Your task to perform on an android device: turn on wifi Image 0: 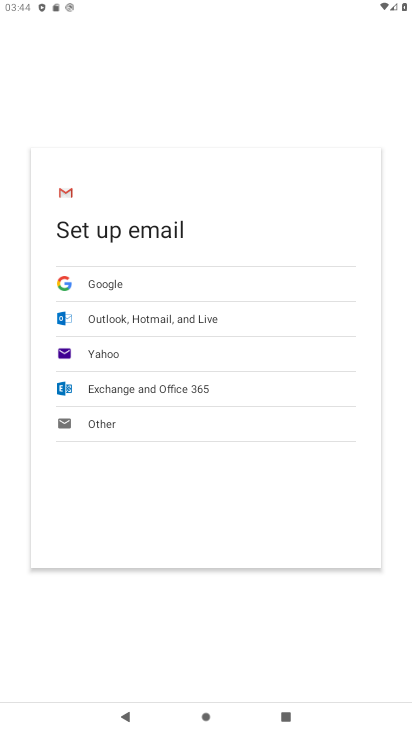
Step 0: press home button
Your task to perform on an android device: turn on wifi Image 1: 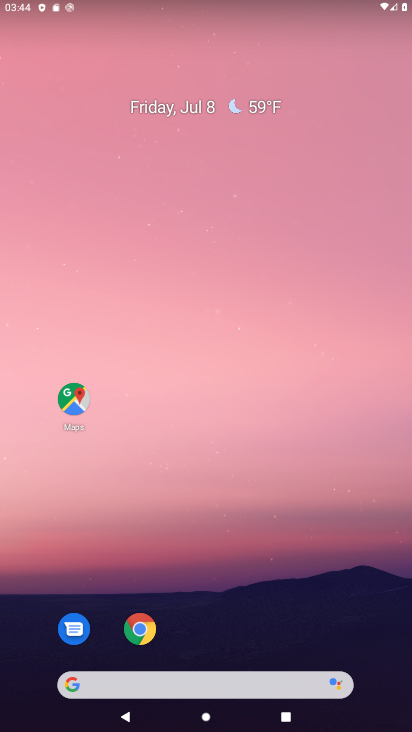
Step 1: drag from (223, 632) to (227, 106)
Your task to perform on an android device: turn on wifi Image 2: 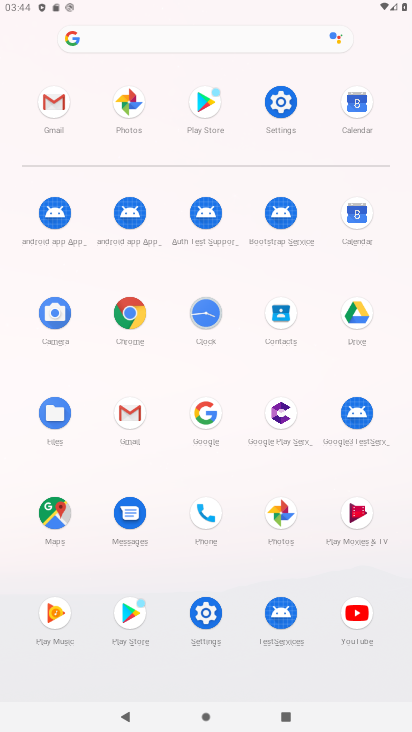
Step 2: click (285, 100)
Your task to perform on an android device: turn on wifi Image 3: 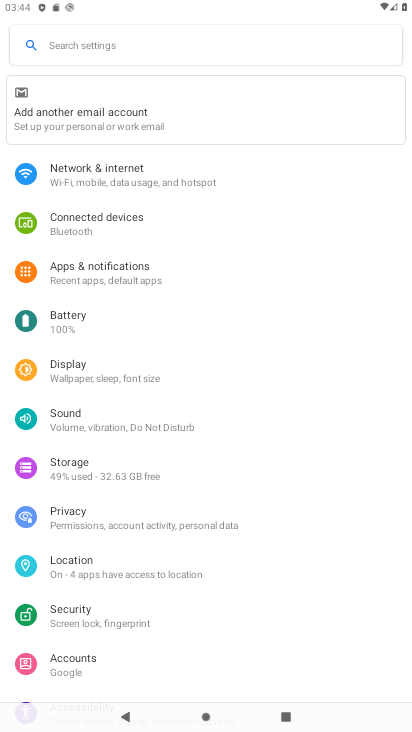
Step 3: click (140, 178)
Your task to perform on an android device: turn on wifi Image 4: 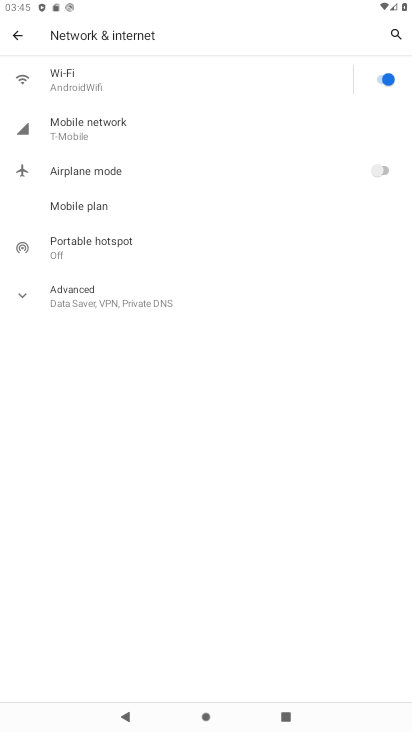
Step 4: task complete